Your task to perform on an android device: toggle pop-ups in chrome Image 0: 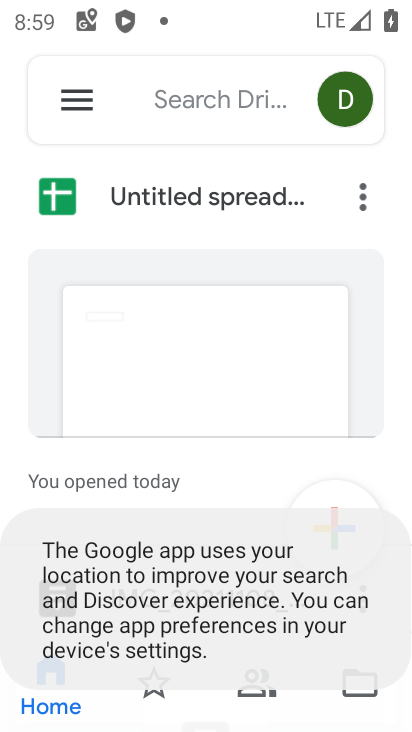
Step 0: press home button
Your task to perform on an android device: toggle pop-ups in chrome Image 1: 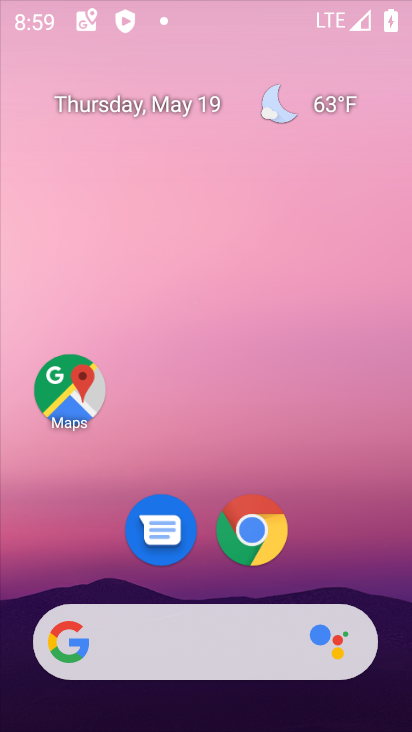
Step 1: press home button
Your task to perform on an android device: toggle pop-ups in chrome Image 2: 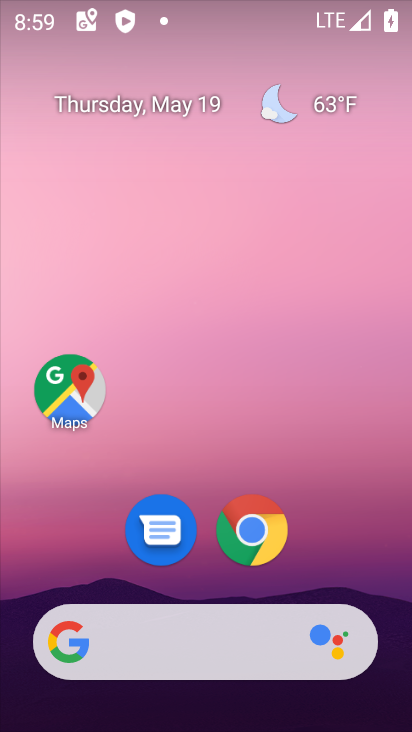
Step 2: click (252, 542)
Your task to perform on an android device: toggle pop-ups in chrome Image 3: 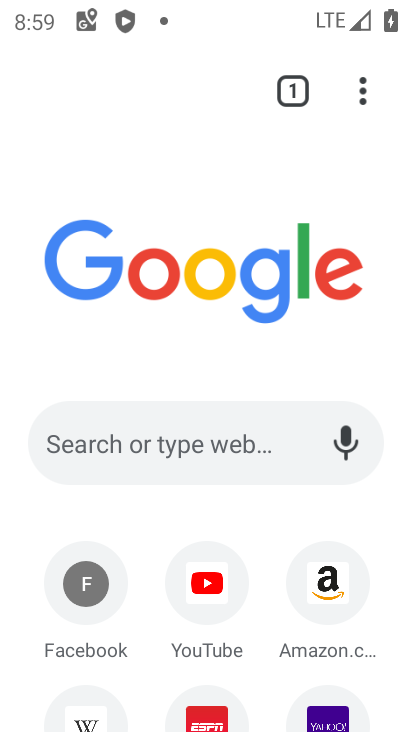
Step 3: click (350, 104)
Your task to perform on an android device: toggle pop-ups in chrome Image 4: 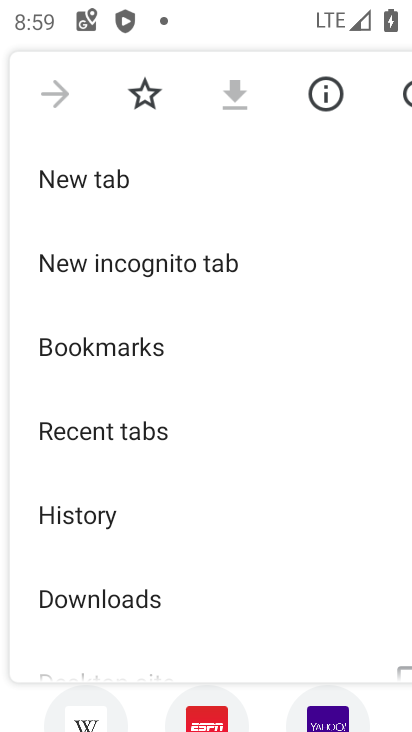
Step 4: drag from (299, 418) to (381, 190)
Your task to perform on an android device: toggle pop-ups in chrome Image 5: 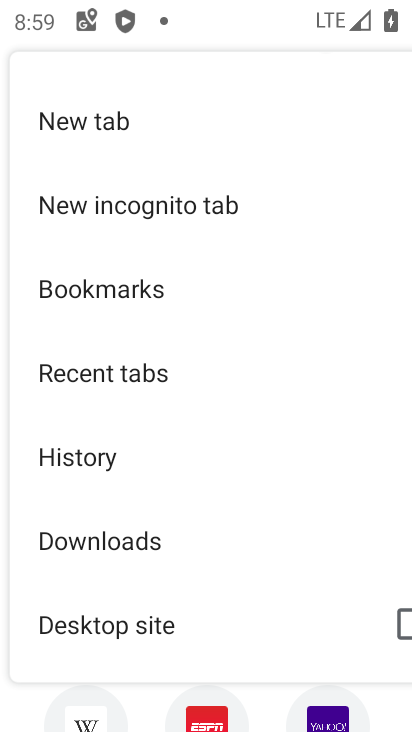
Step 5: drag from (260, 486) to (286, 88)
Your task to perform on an android device: toggle pop-ups in chrome Image 6: 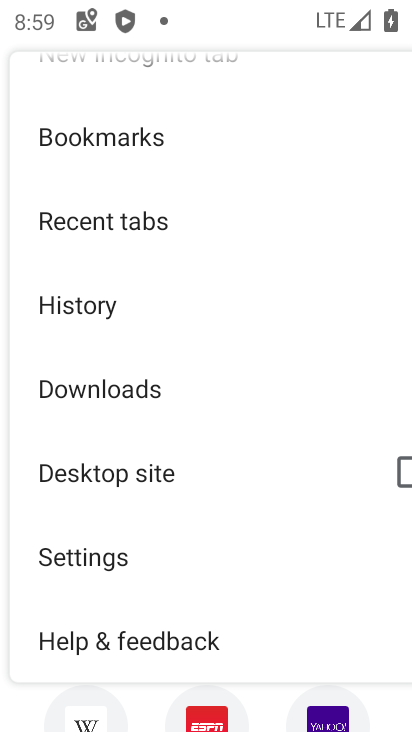
Step 6: click (118, 545)
Your task to perform on an android device: toggle pop-ups in chrome Image 7: 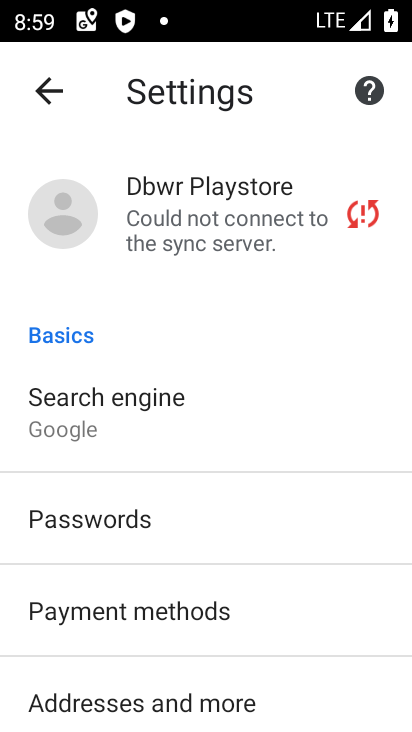
Step 7: drag from (156, 570) to (179, 388)
Your task to perform on an android device: toggle pop-ups in chrome Image 8: 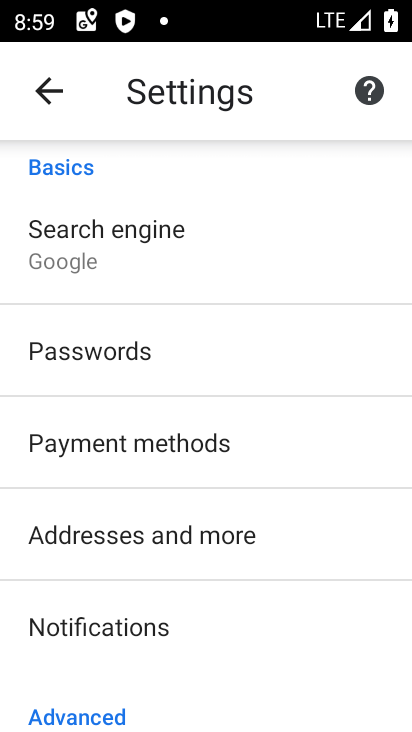
Step 8: drag from (179, 589) to (222, 217)
Your task to perform on an android device: toggle pop-ups in chrome Image 9: 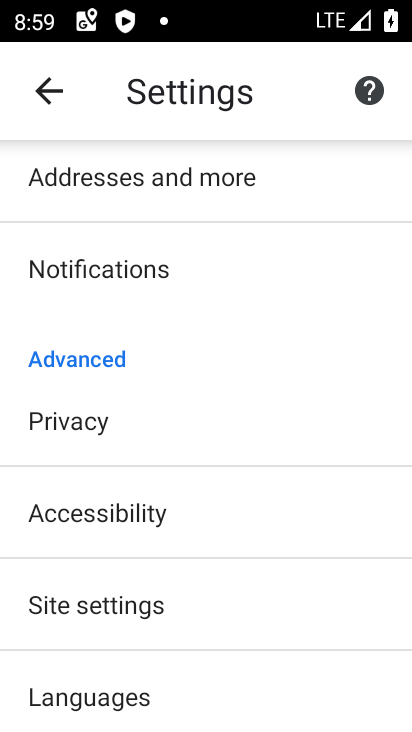
Step 9: click (131, 608)
Your task to perform on an android device: toggle pop-ups in chrome Image 10: 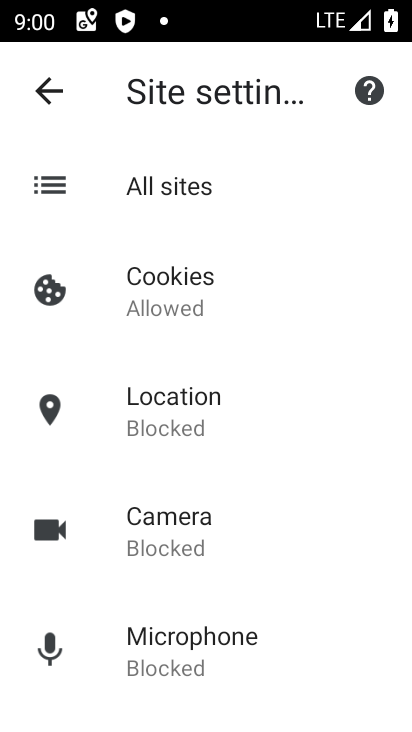
Step 10: drag from (131, 608) to (173, 67)
Your task to perform on an android device: toggle pop-ups in chrome Image 11: 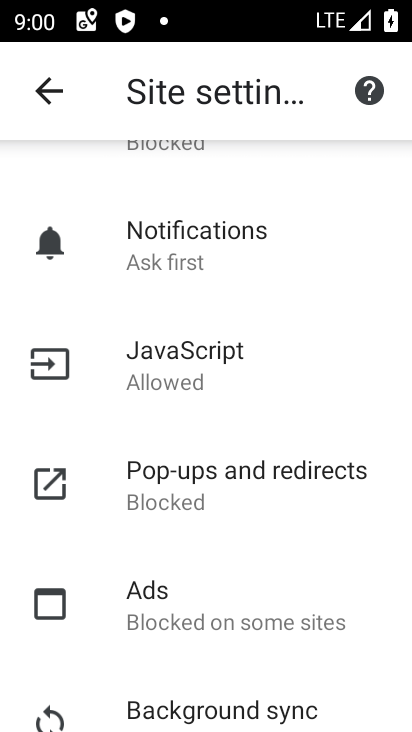
Step 11: click (302, 495)
Your task to perform on an android device: toggle pop-ups in chrome Image 12: 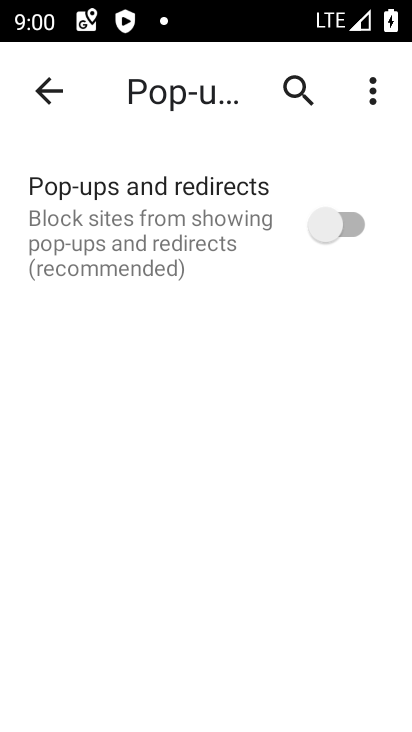
Step 12: click (356, 225)
Your task to perform on an android device: toggle pop-ups in chrome Image 13: 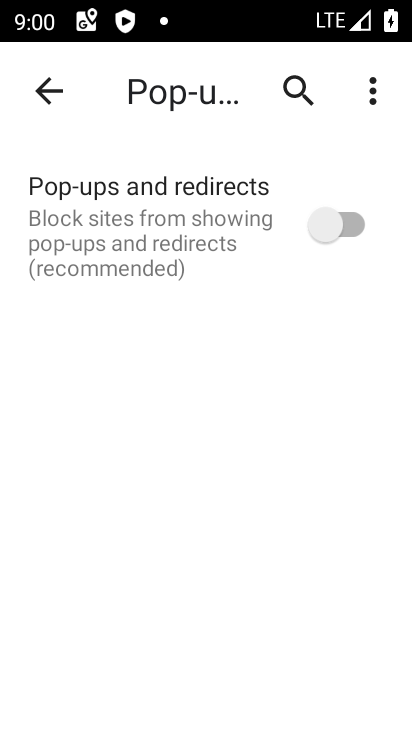
Step 13: click (249, 256)
Your task to perform on an android device: toggle pop-ups in chrome Image 14: 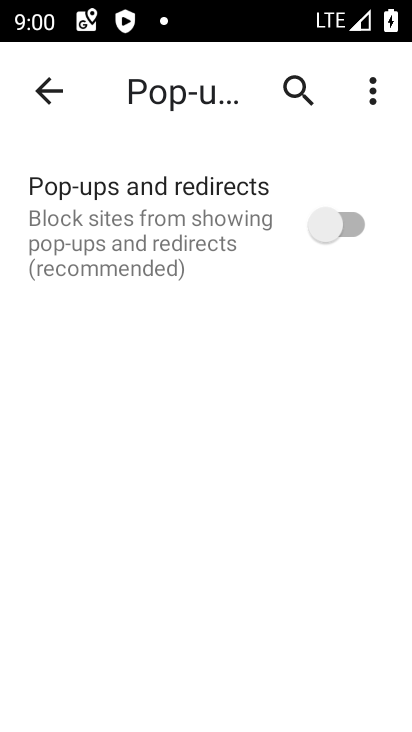
Step 14: click (340, 239)
Your task to perform on an android device: toggle pop-ups in chrome Image 15: 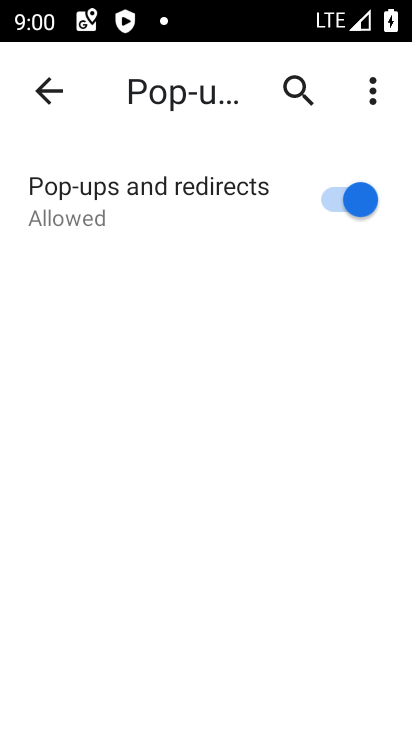
Step 15: task complete